Your task to perform on an android device: turn off location Image 0: 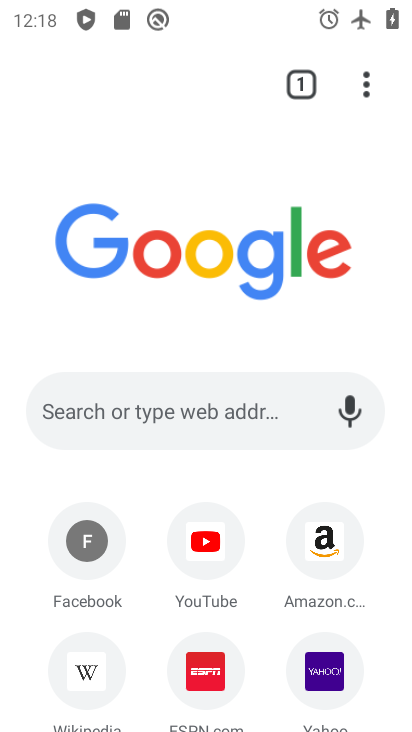
Step 0: press home button
Your task to perform on an android device: turn off location Image 1: 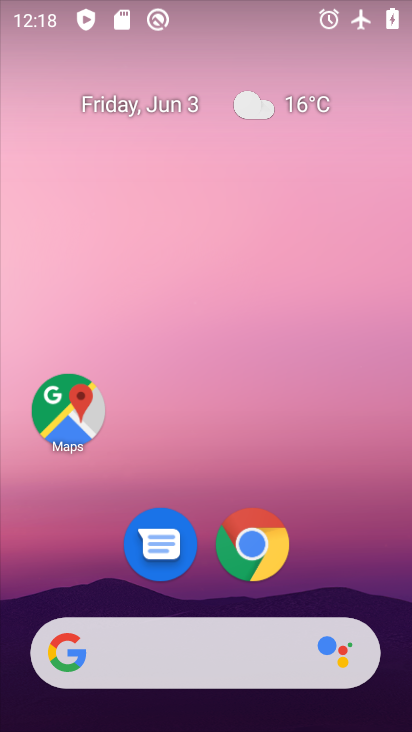
Step 1: drag from (372, 555) to (349, 225)
Your task to perform on an android device: turn off location Image 2: 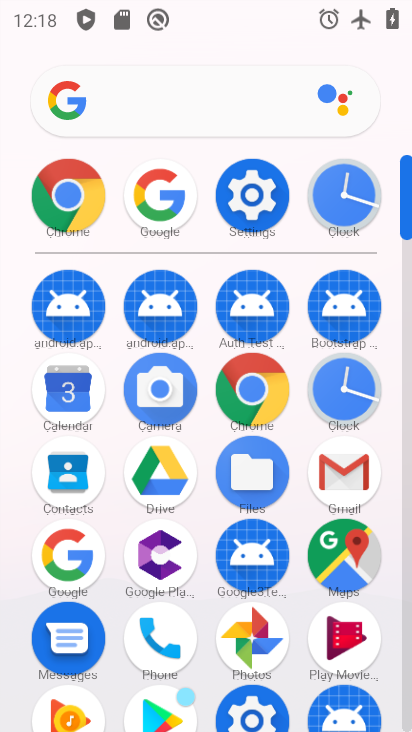
Step 2: click (258, 206)
Your task to perform on an android device: turn off location Image 3: 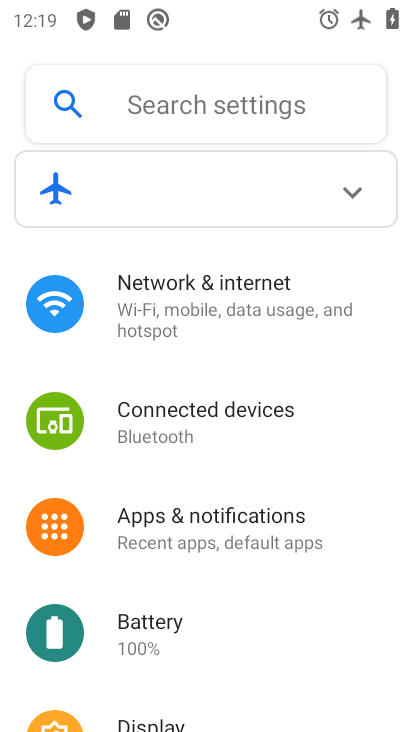
Step 3: drag from (273, 652) to (276, 364)
Your task to perform on an android device: turn off location Image 4: 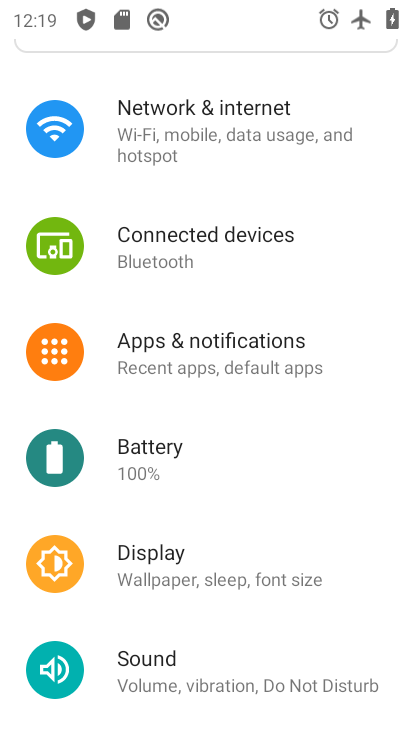
Step 4: drag from (303, 600) to (300, 256)
Your task to perform on an android device: turn off location Image 5: 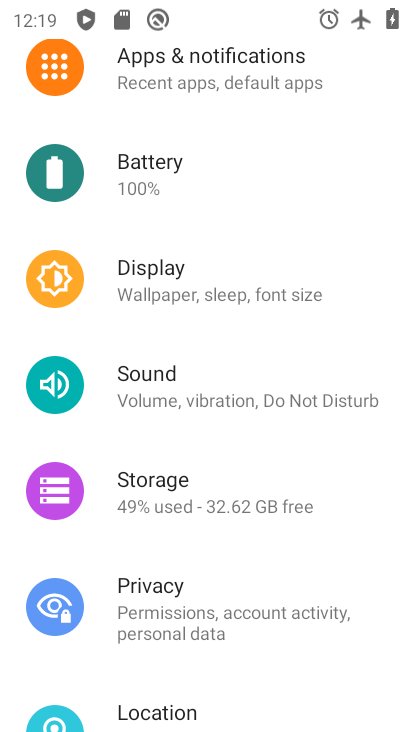
Step 5: drag from (292, 660) to (283, 406)
Your task to perform on an android device: turn off location Image 6: 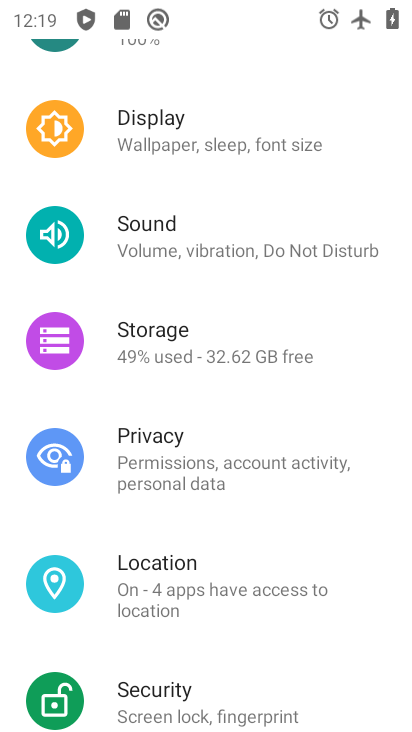
Step 6: click (224, 573)
Your task to perform on an android device: turn off location Image 7: 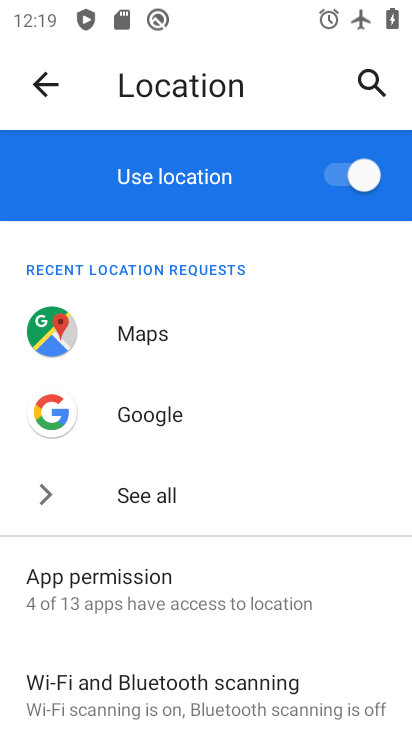
Step 7: task complete